Your task to perform on an android device: Open Chrome and go to the settings page Image 0: 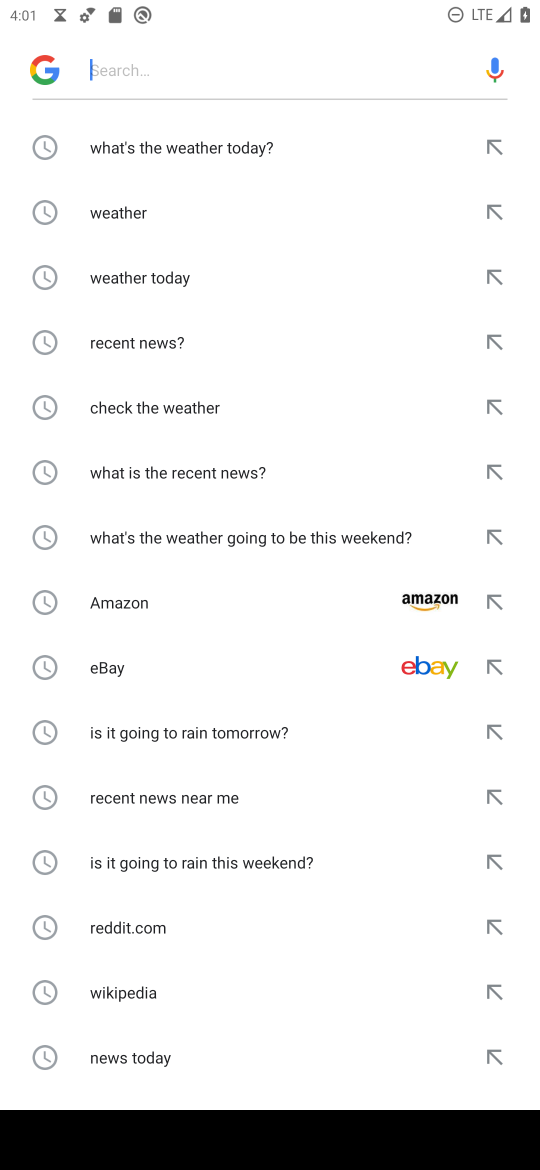
Step 0: press home button
Your task to perform on an android device: Open Chrome and go to the settings page Image 1: 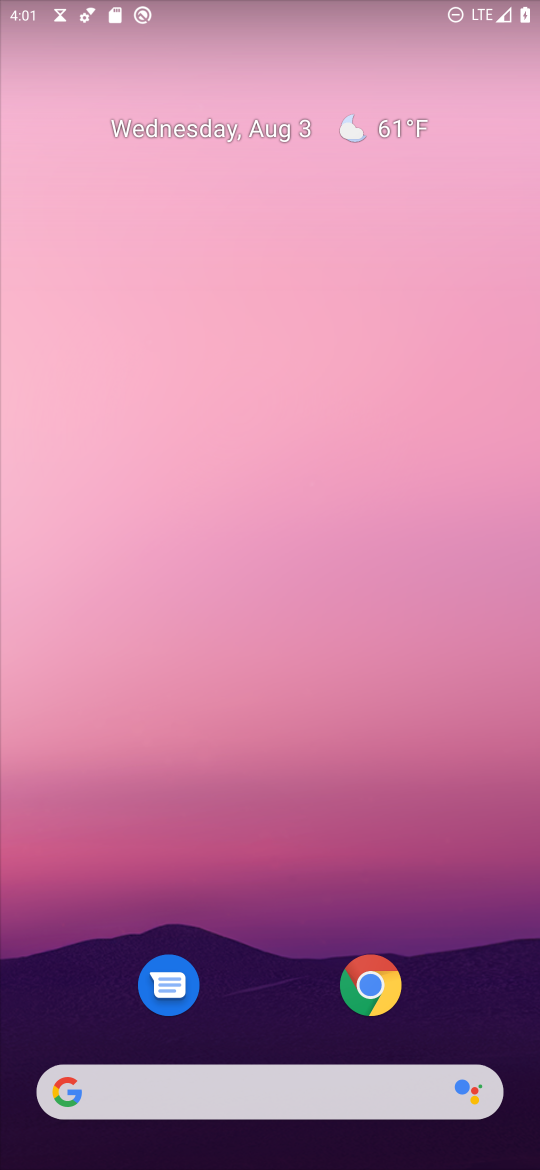
Step 1: click (378, 985)
Your task to perform on an android device: Open Chrome and go to the settings page Image 2: 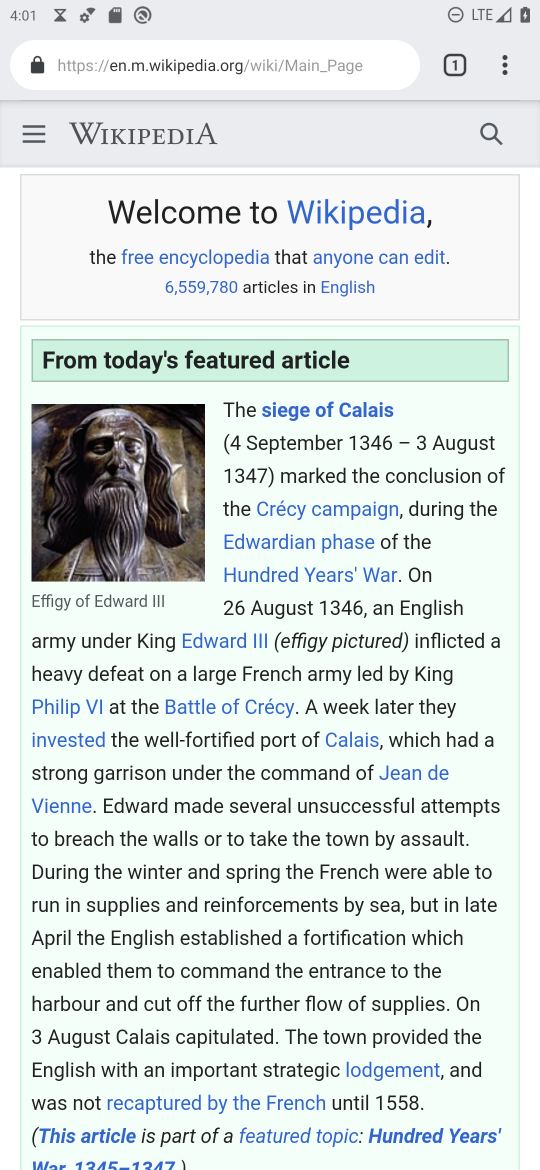
Step 2: click (497, 65)
Your task to perform on an android device: Open Chrome and go to the settings page Image 3: 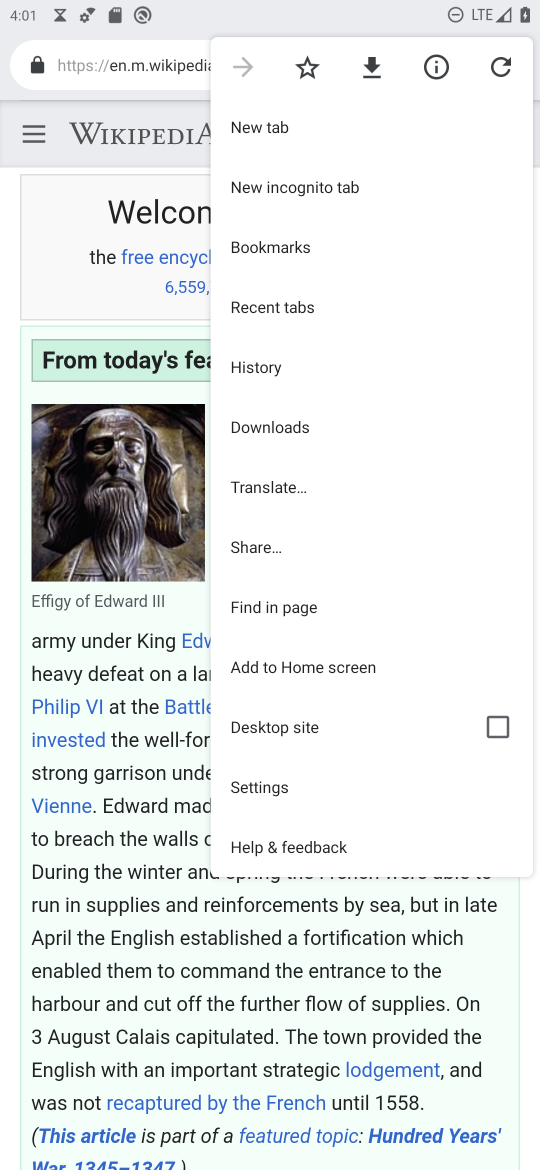
Step 3: click (289, 786)
Your task to perform on an android device: Open Chrome and go to the settings page Image 4: 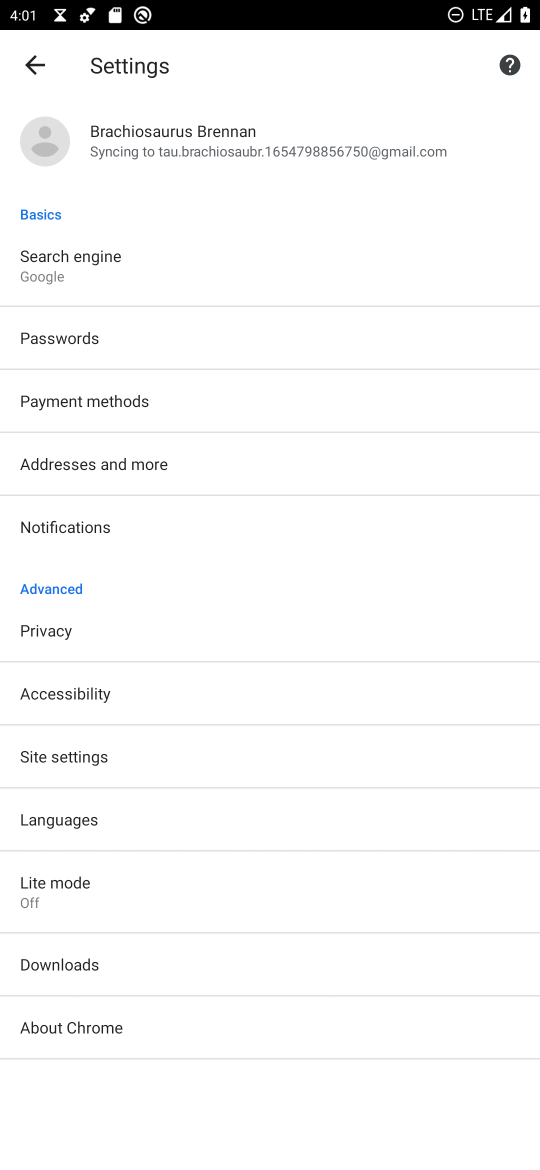
Step 4: task complete